Your task to perform on an android device: turn on javascript in the chrome app Image 0: 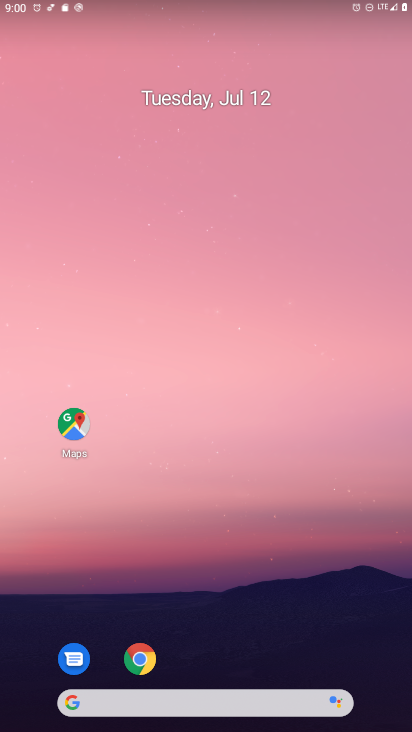
Step 0: click (141, 659)
Your task to perform on an android device: turn on javascript in the chrome app Image 1: 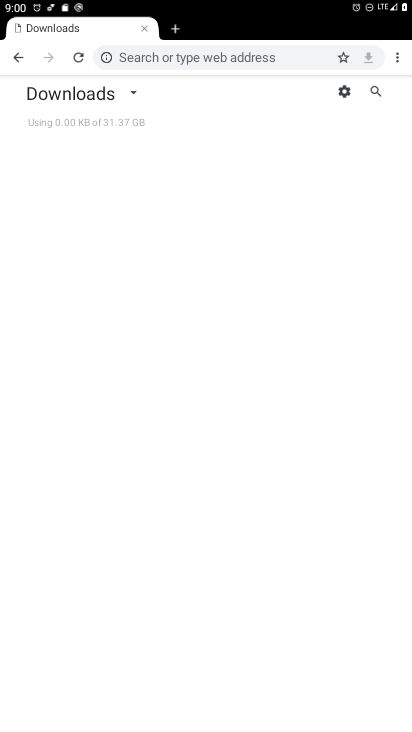
Step 1: click (397, 54)
Your task to perform on an android device: turn on javascript in the chrome app Image 2: 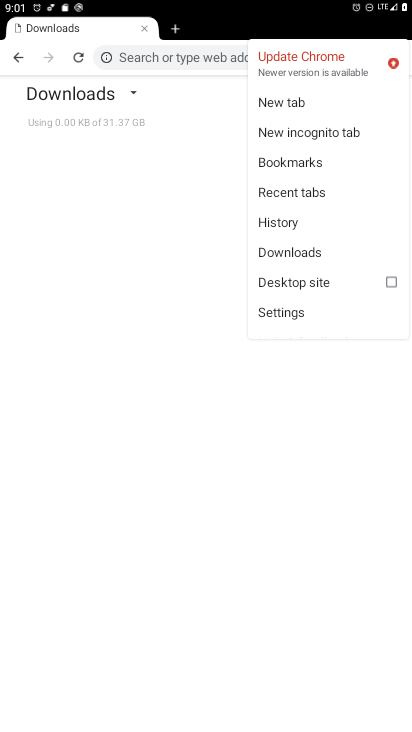
Step 2: click (283, 310)
Your task to perform on an android device: turn on javascript in the chrome app Image 3: 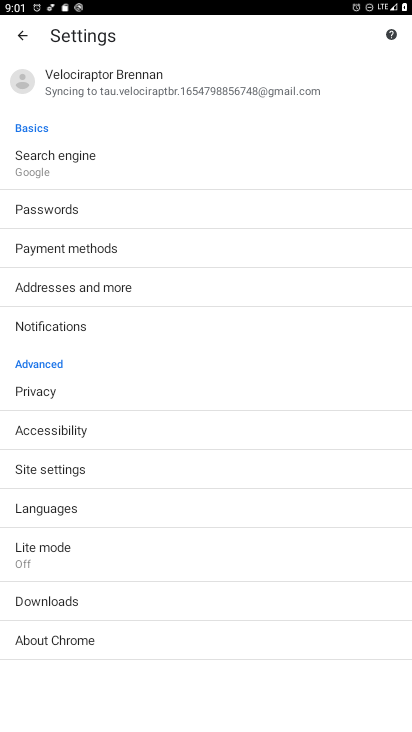
Step 3: click (36, 473)
Your task to perform on an android device: turn on javascript in the chrome app Image 4: 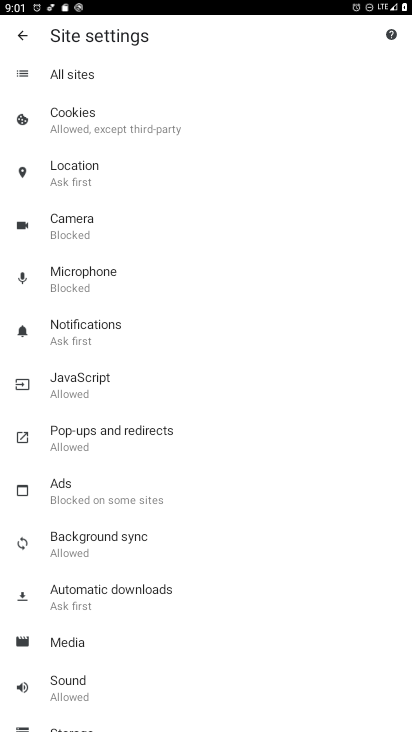
Step 4: click (80, 380)
Your task to perform on an android device: turn on javascript in the chrome app Image 5: 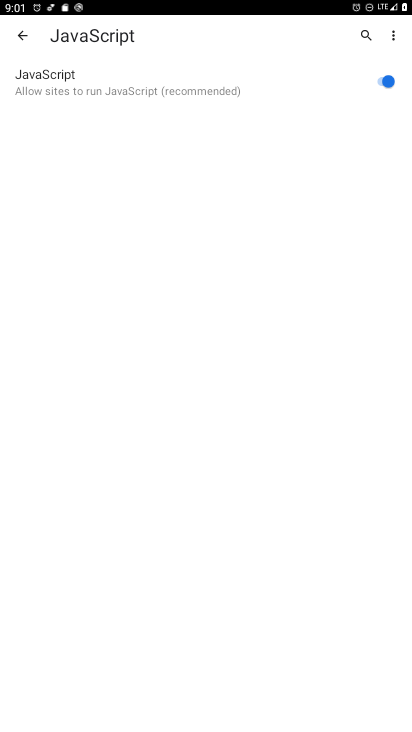
Step 5: task complete